Your task to perform on an android device: Toggle the flashlight Image 0: 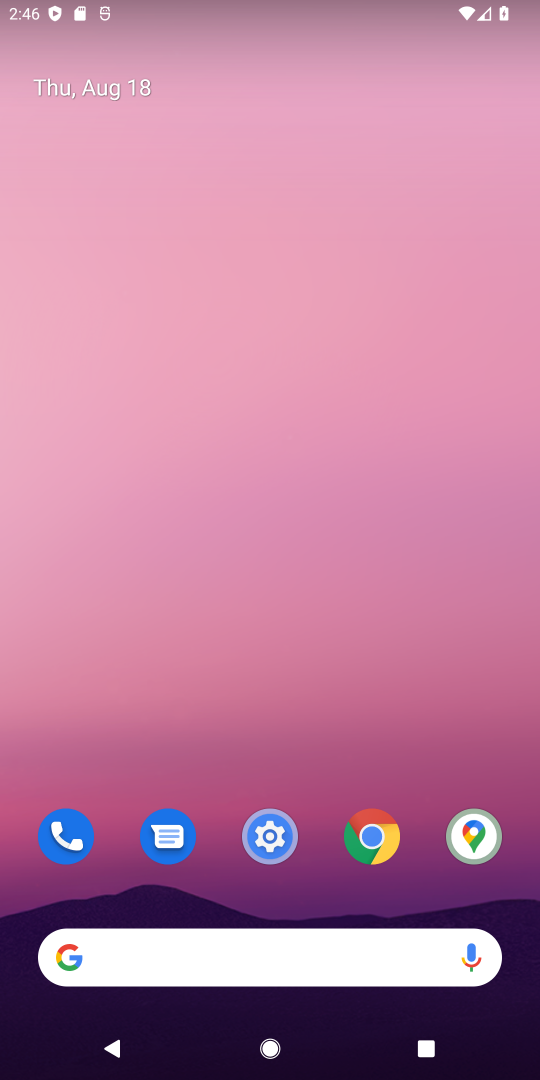
Step 0: drag from (300, 768) to (389, 237)
Your task to perform on an android device: Toggle the flashlight Image 1: 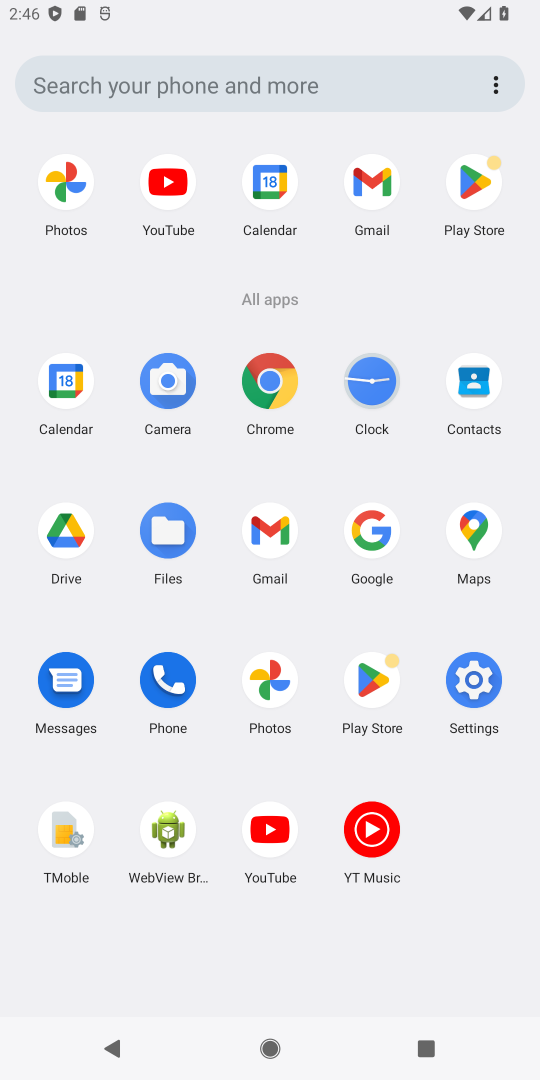
Step 1: click (477, 689)
Your task to perform on an android device: Toggle the flashlight Image 2: 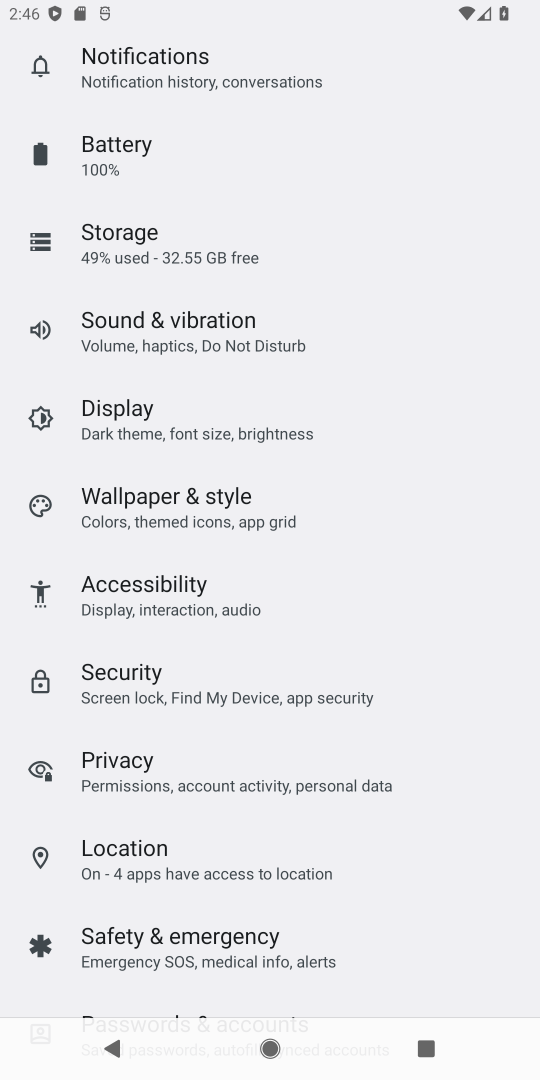
Step 2: task complete